Your task to perform on an android device: Open eBay Image 0: 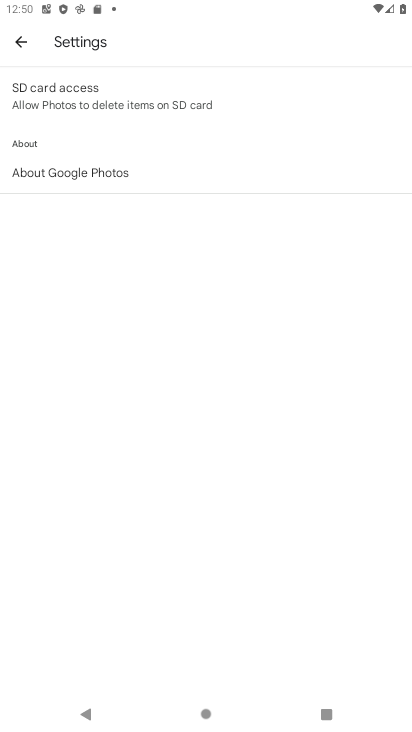
Step 0: press home button
Your task to perform on an android device: Open eBay Image 1: 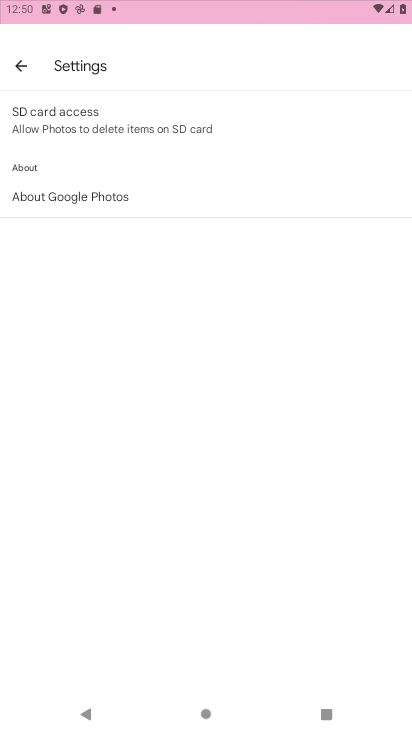
Step 1: drag from (289, 321) to (210, 63)
Your task to perform on an android device: Open eBay Image 2: 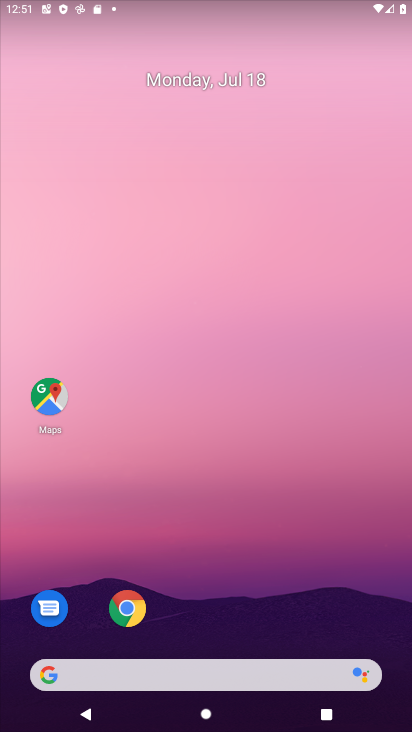
Step 2: drag from (354, 618) to (206, 0)
Your task to perform on an android device: Open eBay Image 3: 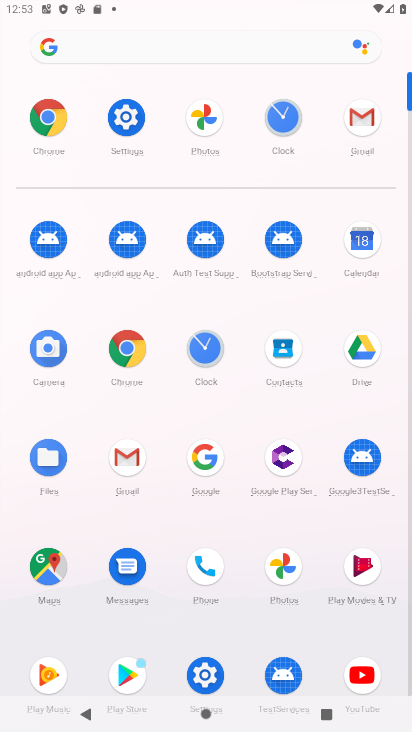
Step 3: click (194, 469)
Your task to perform on an android device: Open eBay Image 4: 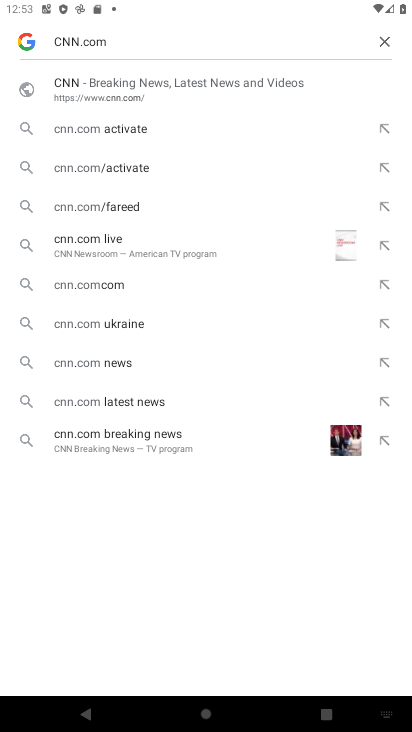
Step 4: click (387, 32)
Your task to perform on an android device: Open eBay Image 5: 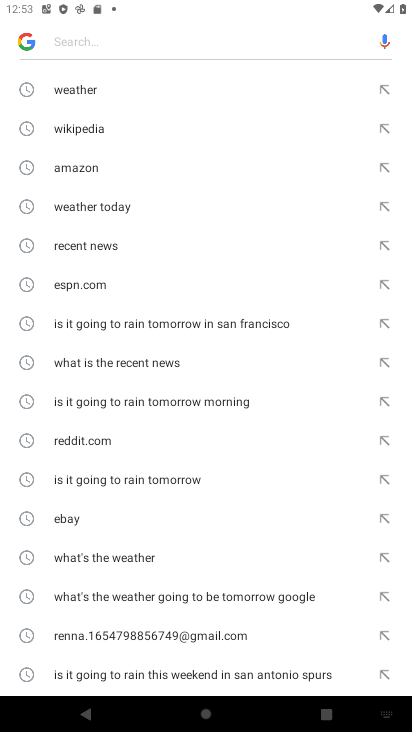
Step 5: click (51, 516)
Your task to perform on an android device: Open eBay Image 6: 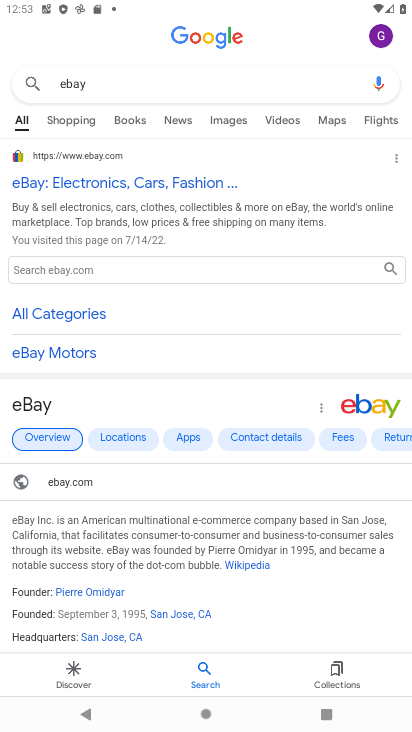
Step 6: task complete